Your task to perform on an android device: What is the news today? Image 0: 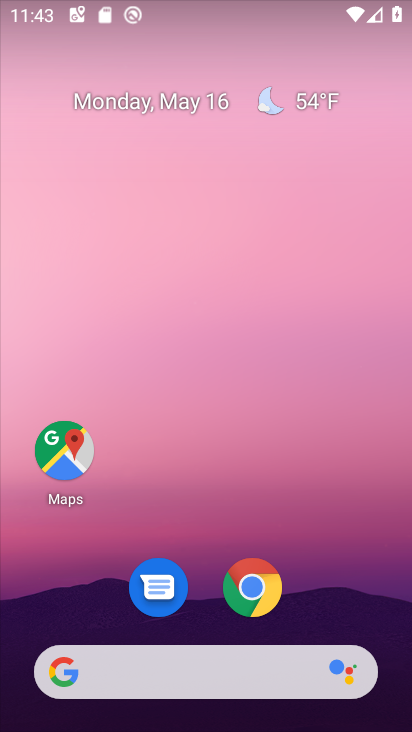
Step 0: click (169, 673)
Your task to perform on an android device: What is the news today? Image 1: 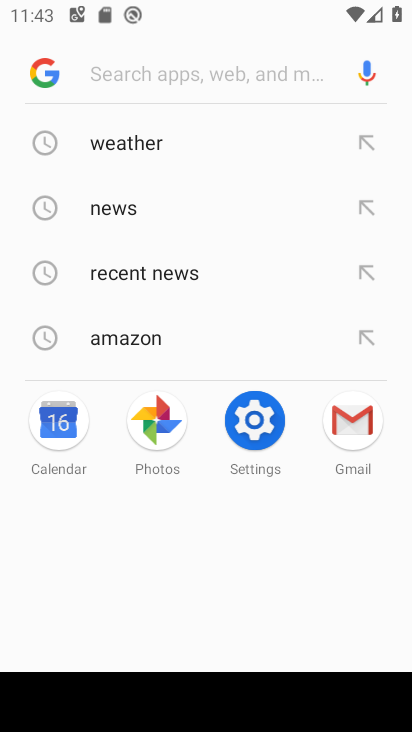
Step 1: type "news today?"
Your task to perform on an android device: What is the news today? Image 2: 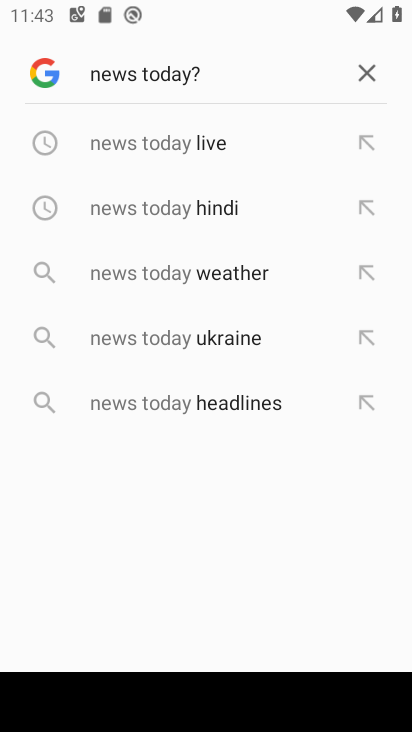
Step 2: click (114, 152)
Your task to perform on an android device: What is the news today? Image 3: 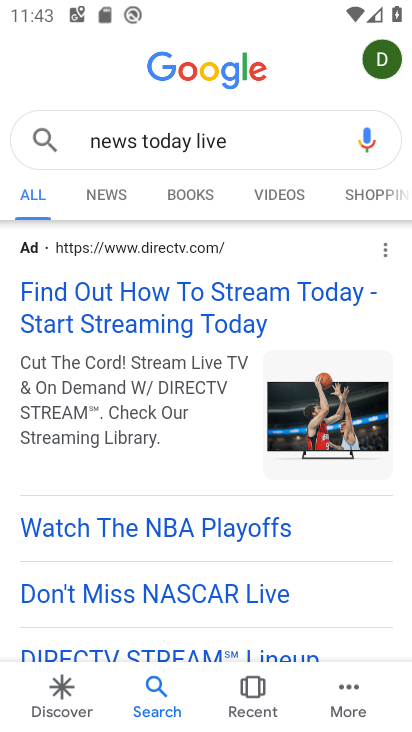
Step 3: task complete